Your task to perform on an android device: Check the news Image 0: 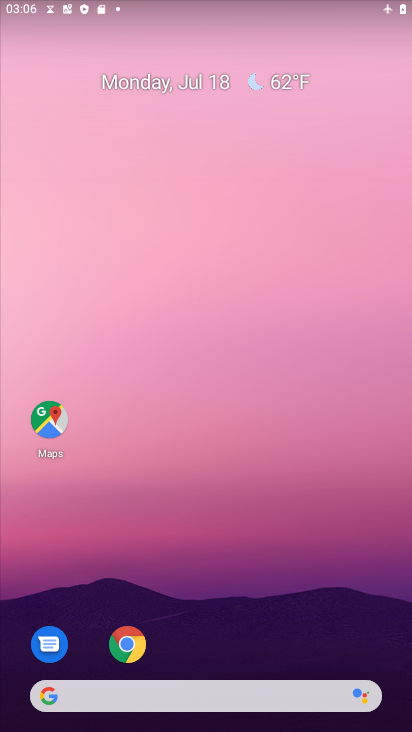
Step 0: drag from (181, 365) to (181, 237)
Your task to perform on an android device: Check the news Image 1: 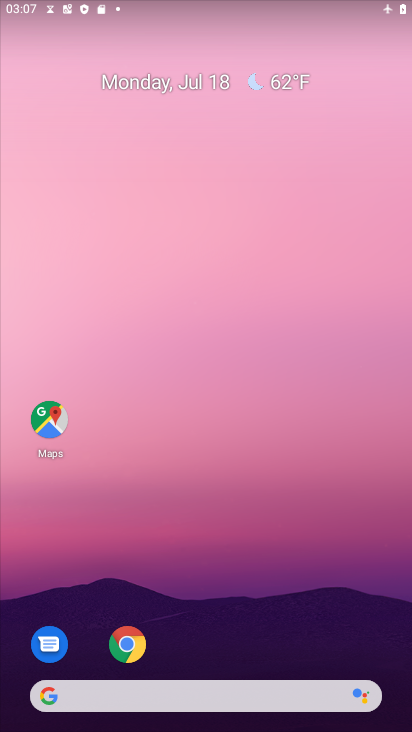
Step 1: drag from (226, 615) to (212, 120)
Your task to perform on an android device: Check the news Image 2: 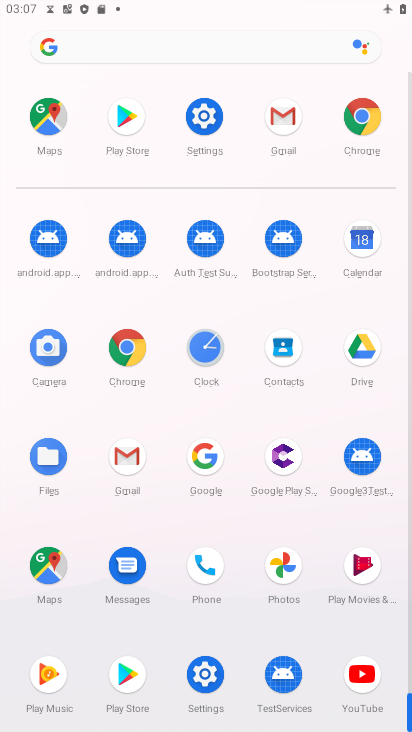
Step 2: click (120, 352)
Your task to perform on an android device: Check the news Image 3: 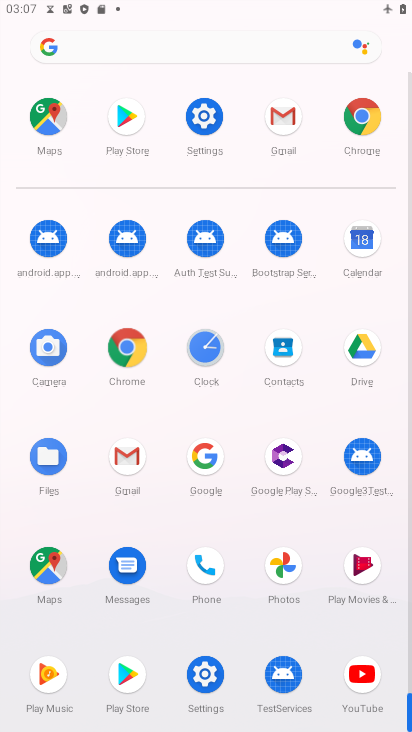
Step 3: click (119, 352)
Your task to perform on an android device: Check the news Image 4: 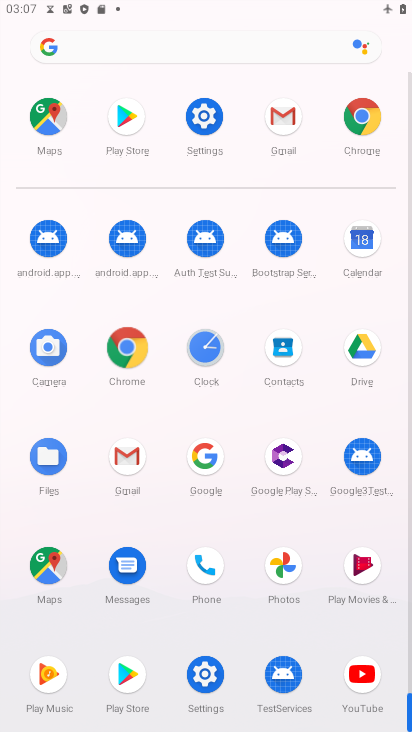
Step 4: click (117, 353)
Your task to perform on an android device: Check the news Image 5: 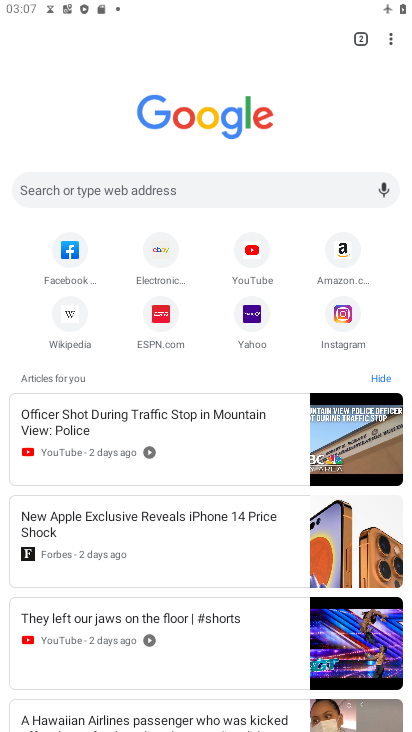
Step 5: drag from (169, 516) to (169, 257)
Your task to perform on an android device: Check the news Image 6: 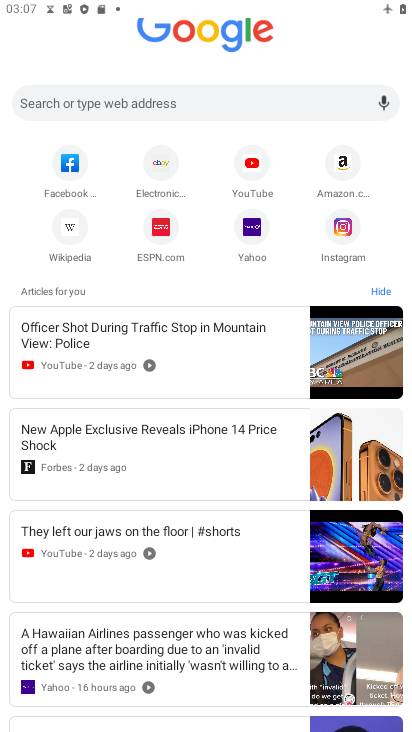
Step 6: click (242, 251)
Your task to perform on an android device: Check the news Image 7: 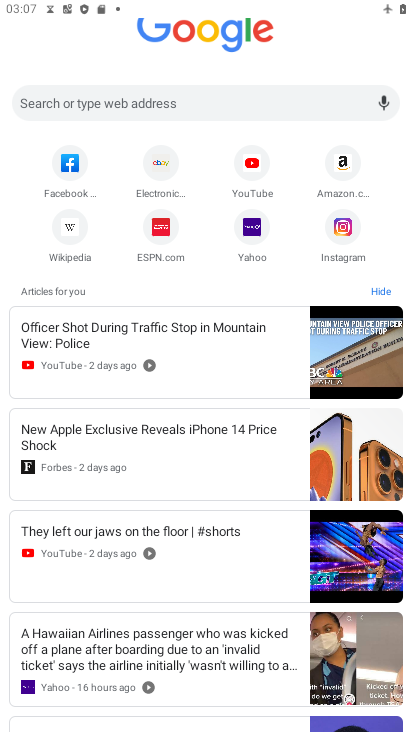
Step 7: task complete